Your task to perform on an android device: Add acer predator to the cart on amazon, then select checkout. Image 0: 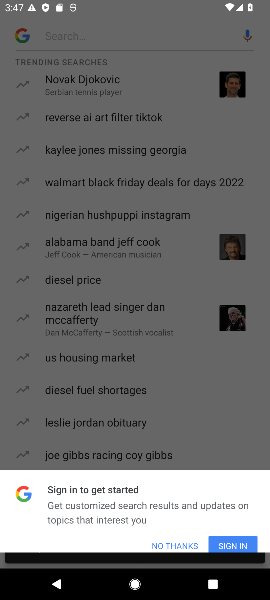
Step 0: press home button
Your task to perform on an android device: Add acer predator to the cart on amazon, then select checkout. Image 1: 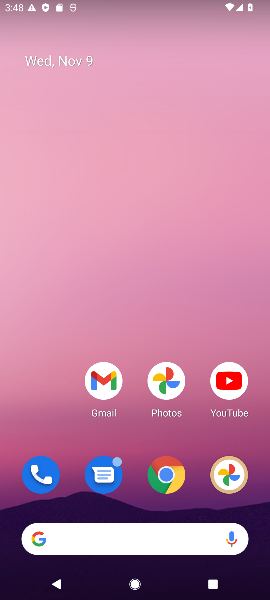
Step 1: drag from (157, 480) to (76, 82)
Your task to perform on an android device: Add acer predator to the cart on amazon, then select checkout. Image 2: 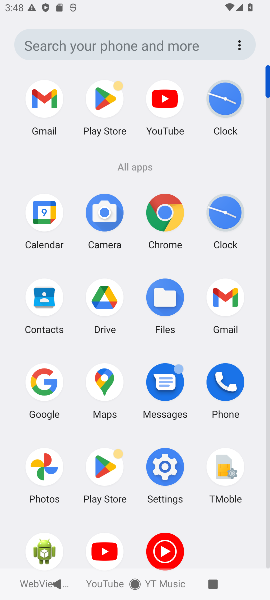
Step 2: click (173, 215)
Your task to perform on an android device: Add acer predator to the cart on amazon, then select checkout. Image 3: 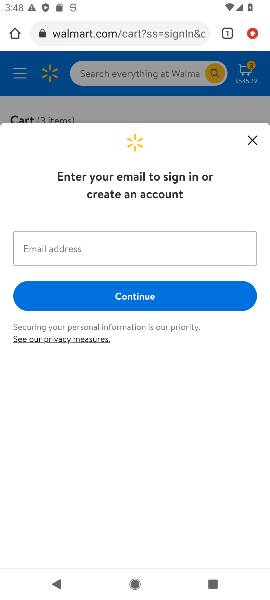
Step 3: click (110, 28)
Your task to perform on an android device: Add acer predator to the cart on amazon, then select checkout. Image 4: 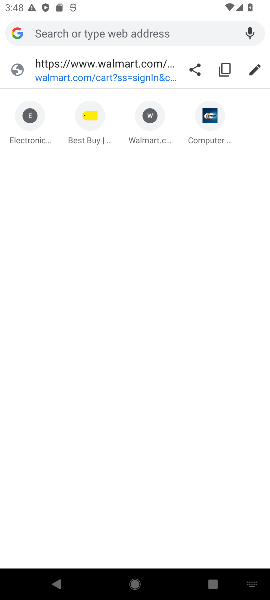
Step 4: type "amazon"
Your task to perform on an android device: Add acer predator to the cart on amazon, then select checkout. Image 5: 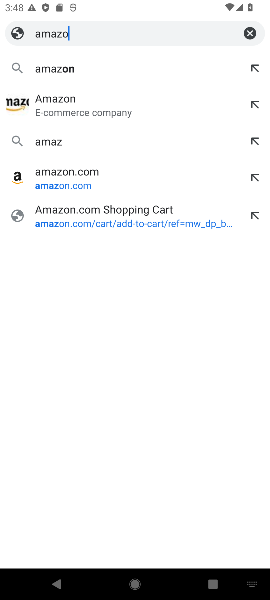
Step 5: press enter
Your task to perform on an android device: Add acer predator to the cart on amazon, then select checkout. Image 6: 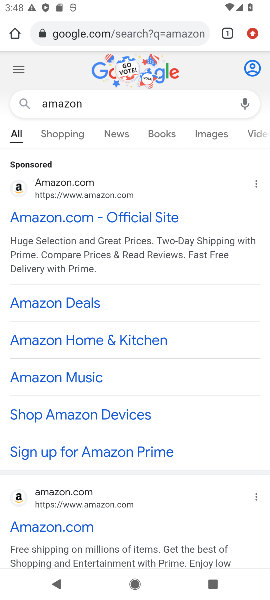
Step 6: click (60, 191)
Your task to perform on an android device: Add acer predator to the cart on amazon, then select checkout. Image 7: 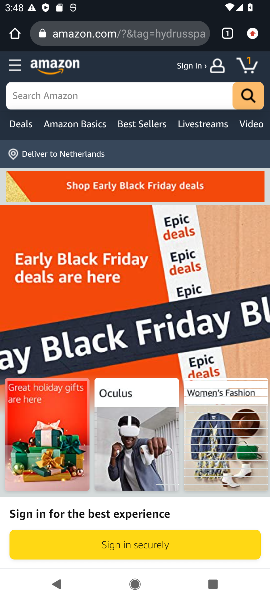
Step 7: click (55, 89)
Your task to perform on an android device: Add acer predator to the cart on amazon, then select checkout. Image 8: 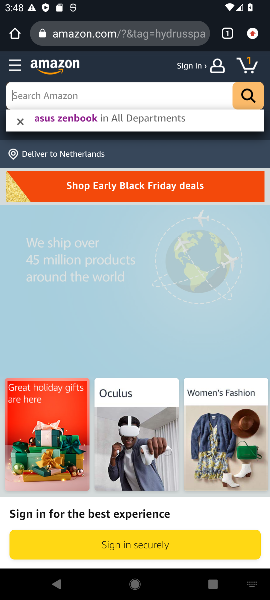
Step 8: type "acer predator"
Your task to perform on an android device: Add acer predator to the cart on amazon, then select checkout. Image 9: 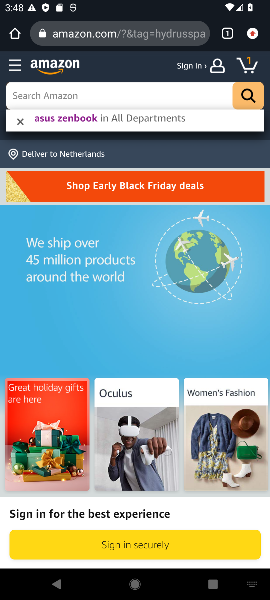
Step 9: press enter
Your task to perform on an android device: Add acer predator to the cart on amazon, then select checkout. Image 10: 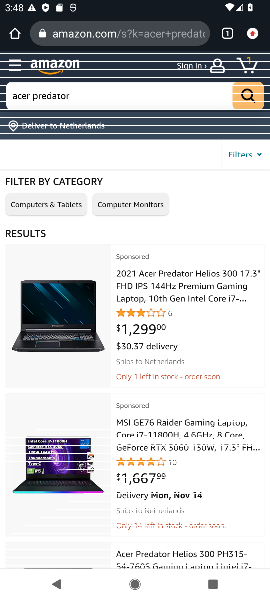
Step 10: click (157, 292)
Your task to perform on an android device: Add acer predator to the cart on amazon, then select checkout. Image 11: 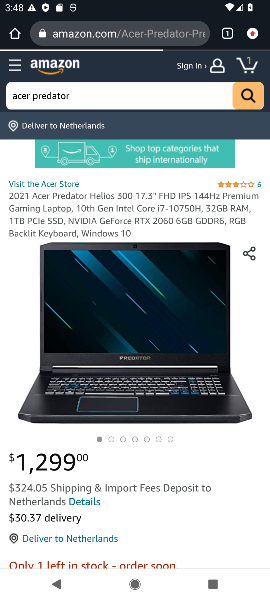
Step 11: drag from (156, 473) to (166, 233)
Your task to perform on an android device: Add acer predator to the cart on amazon, then select checkout. Image 12: 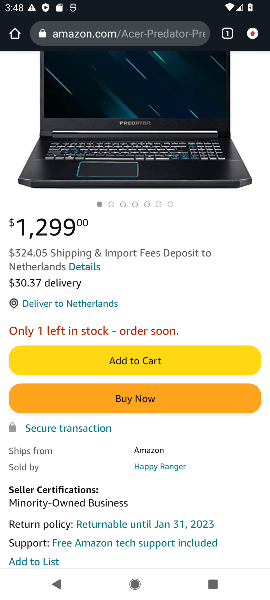
Step 12: click (105, 355)
Your task to perform on an android device: Add acer predator to the cart on amazon, then select checkout. Image 13: 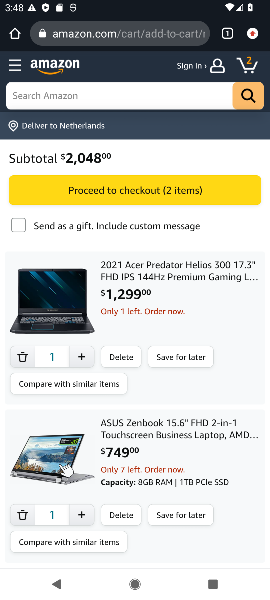
Step 13: click (100, 199)
Your task to perform on an android device: Add acer predator to the cart on amazon, then select checkout. Image 14: 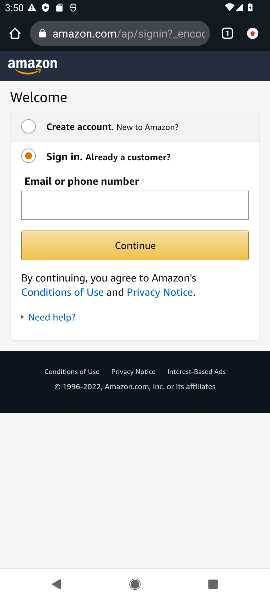
Step 14: task complete